Your task to perform on an android device: Open Youtube and go to the subscriptions tab Image 0: 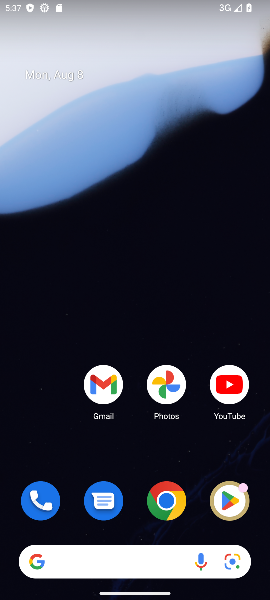
Step 0: click (233, 385)
Your task to perform on an android device: Open Youtube and go to the subscriptions tab Image 1: 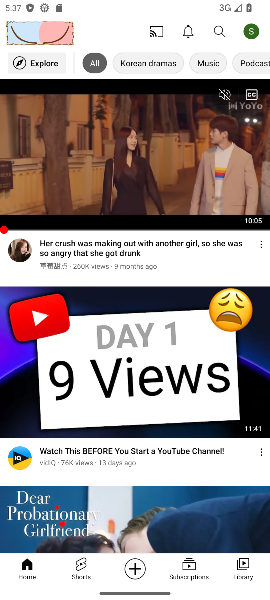
Step 1: click (184, 567)
Your task to perform on an android device: Open Youtube and go to the subscriptions tab Image 2: 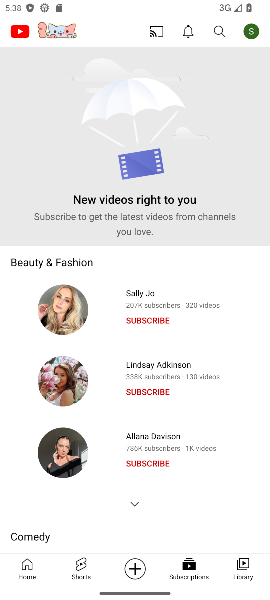
Step 2: task complete